Your task to perform on an android device: Go to wifi settings Image 0: 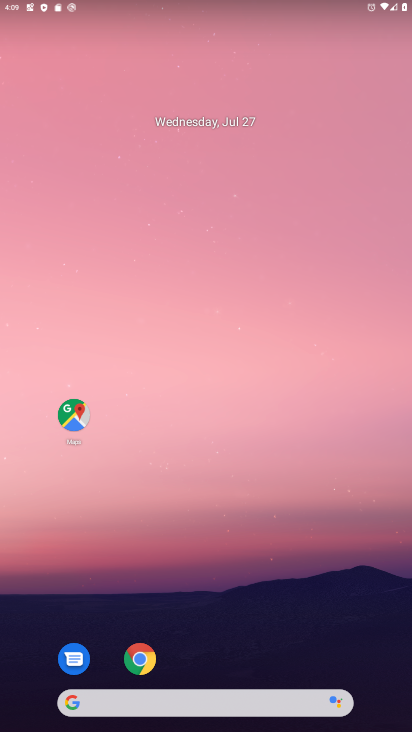
Step 0: drag from (294, 664) to (352, 122)
Your task to perform on an android device: Go to wifi settings Image 1: 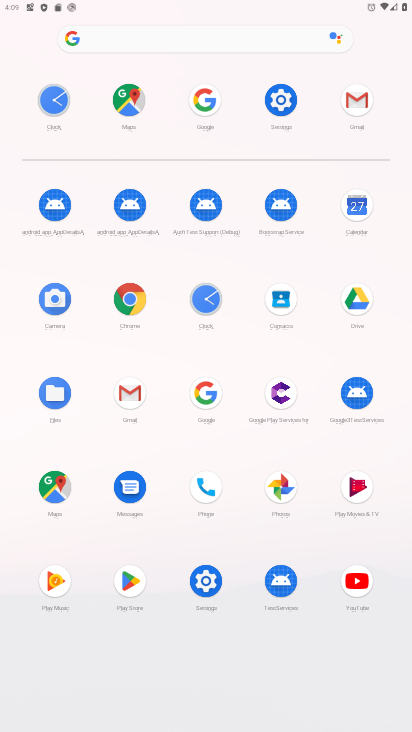
Step 1: click (287, 96)
Your task to perform on an android device: Go to wifi settings Image 2: 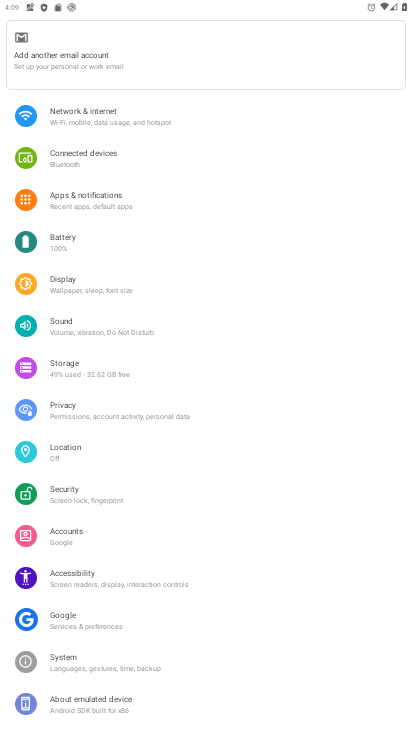
Step 2: click (150, 122)
Your task to perform on an android device: Go to wifi settings Image 3: 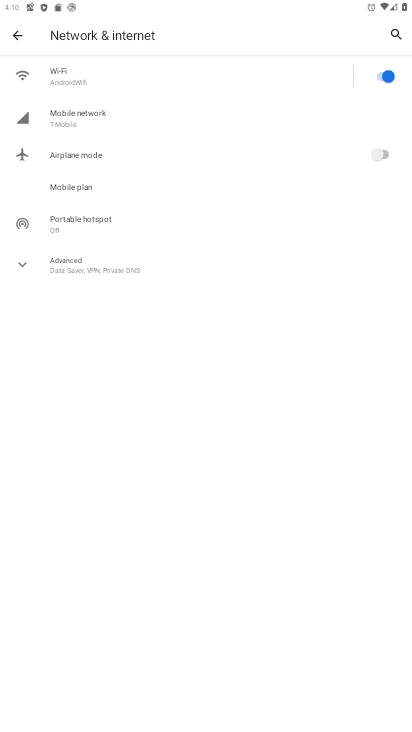
Step 3: click (126, 77)
Your task to perform on an android device: Go to wifi settings Image 4: 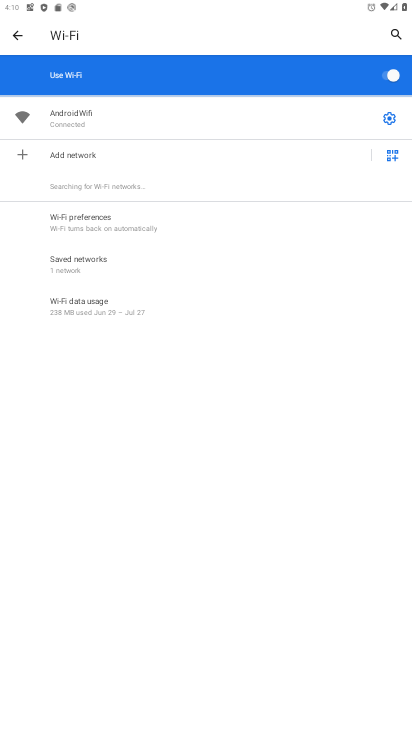
Step 4: task complete